Your task to perform on an android device: Search for flights from NYC to San Francisco Image 0: 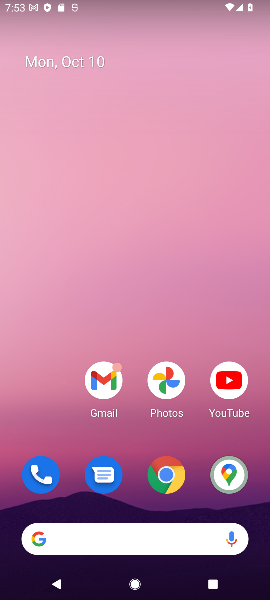
Step 0: click (171, 467)
Your task to perform on an android device: Search for flights from NYC to San Francisco Image 1: 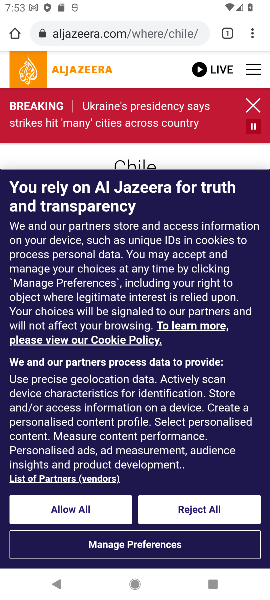
Step 1: click (124, 28)
Your task to perform on an android device: Search for flights from NYC to San Francisco Image 2: 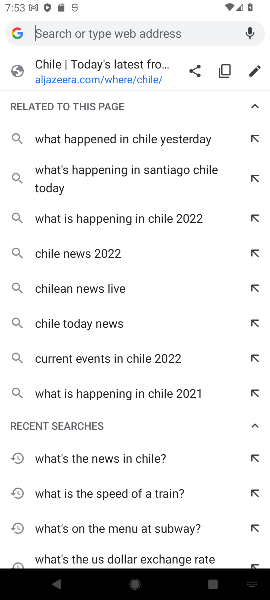
Step 2: type "flights from NYC to San Francisco"
Your task to perform on an android device: Search for flights from NYC to San Francisco Image 3: 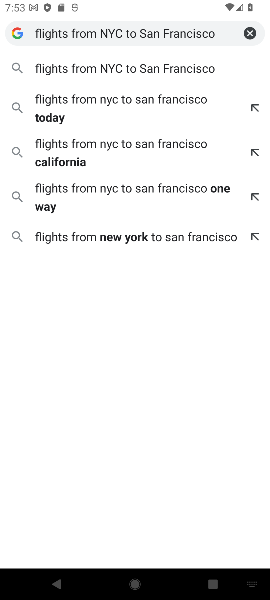
Step 3: click (146, 67)
Your task to perform on an android device: Search for flights from NYC to San Francisco Image 4: 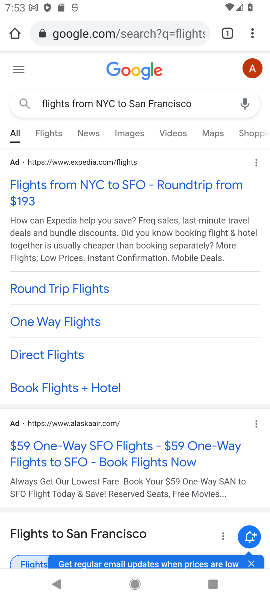
Step 4: click (110, 192)
Your task to perform on an android device: Search for flights from NYC to San Francisco Image 5: 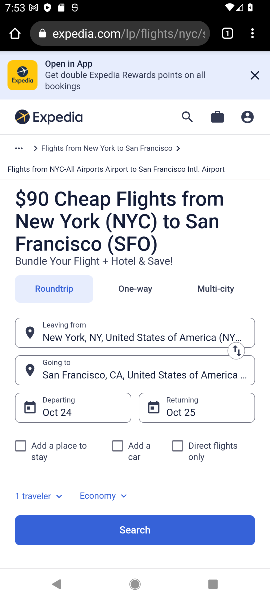
Step 5: task complete